Your task to perform on an android device: turn off location Image 0: 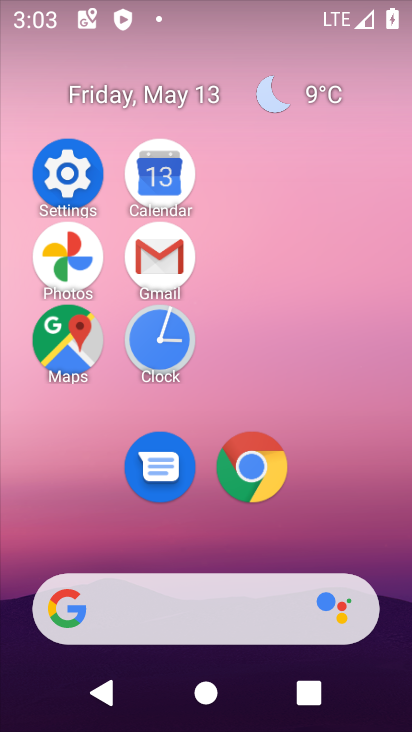
Step 0: click (77, 169)
Your task to perform on an android device: turn off location Image 1: 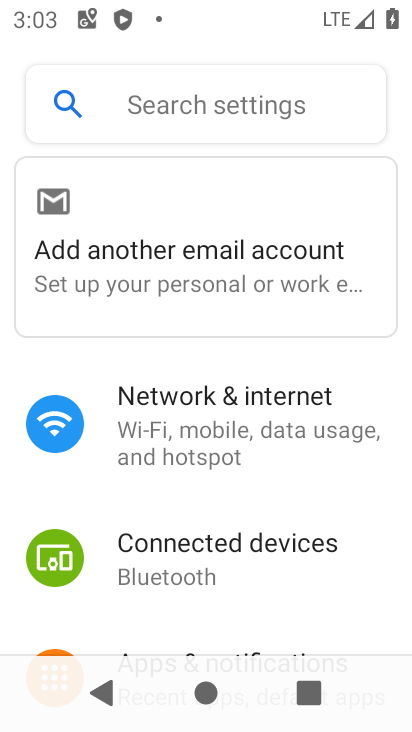
Step 1: drag from (254, 573) to (249, 143)
Your task to perform on an android device: turn off location Image 2: 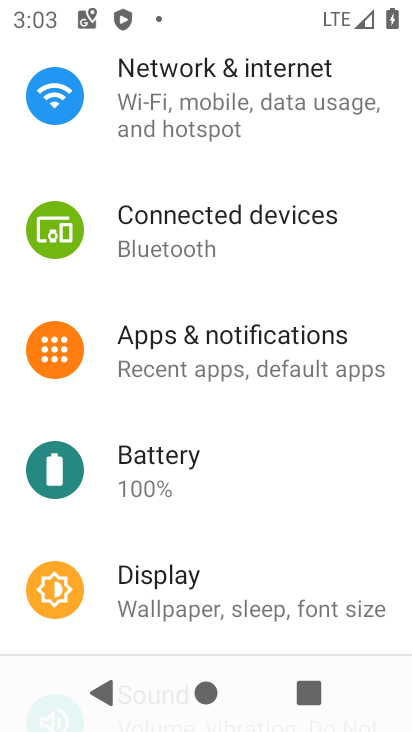
Step 2: drag from (297, 488) to (270, 27)
Your task to perform on an android device: turn off location Image 3: 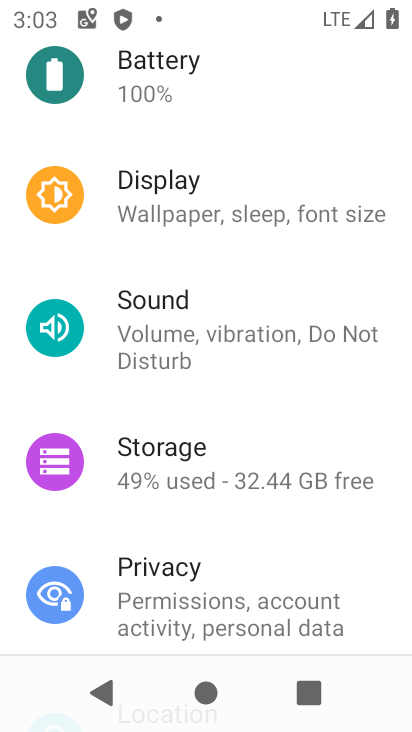
Step 3: drag from (192, 542) to (270, 134)
Your task to perform on an android device: turn off location Image 4: 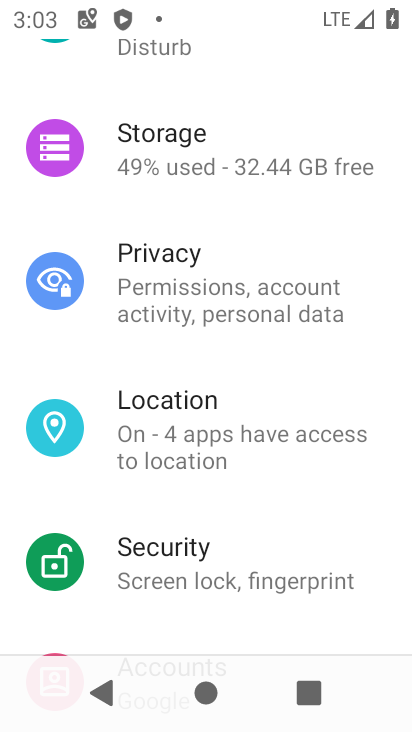
Step 4: drag from (275, 523) to (343, 140)
Your task to perform on an android device: turn off location Image 5: 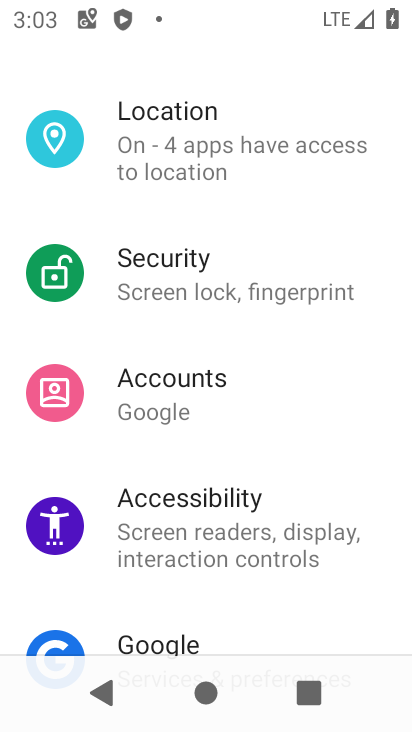
Step 5: drag from (304, 463) to (317, 427)
Your task to perform on an android device: turn off location Image 6: 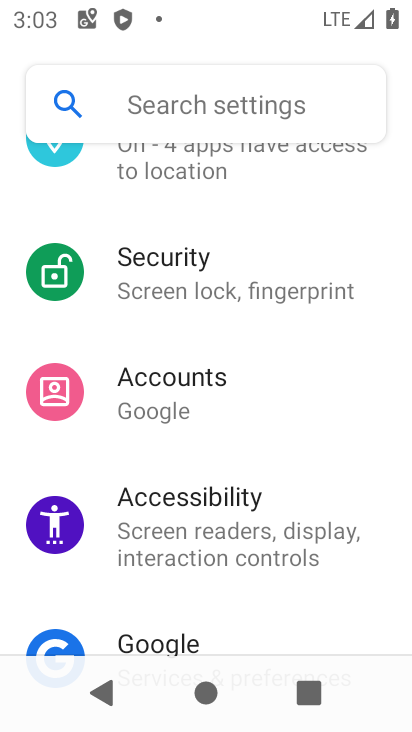
Step 6: click (219, 173)
Your task to perform on an android device: turn off location Image 7: 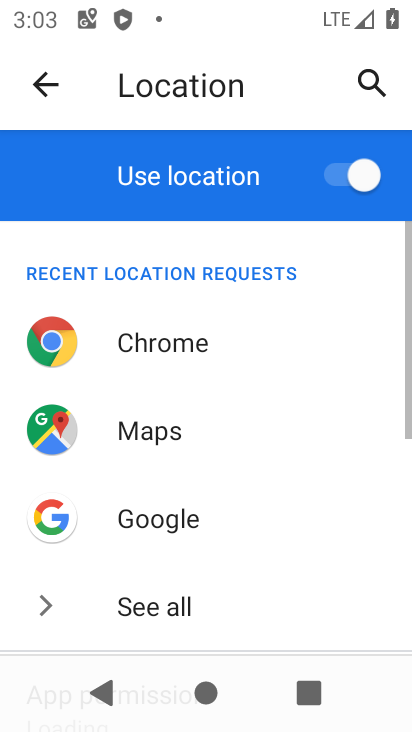
Step 7: click (348, 167)
Your task to perform on an android device: turn off location Image 8: 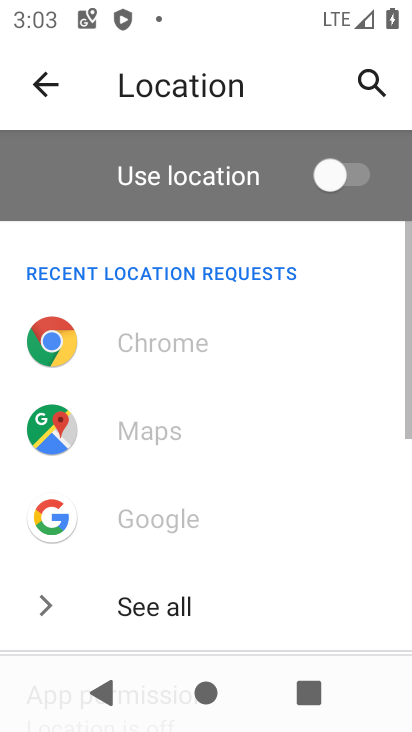
Step 8: task complete